Your task to perform on an android device: Open wifi settings Image 0: 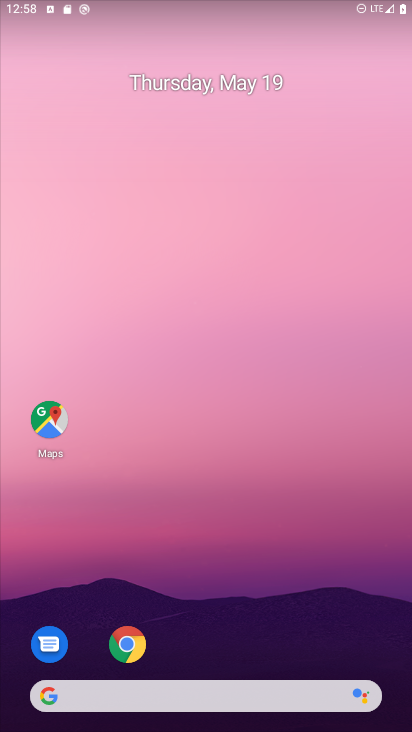
Step 0: drag from (291, 657) to (354, 23)
Your task to perform on an android device: Open wifi settings Image 1: 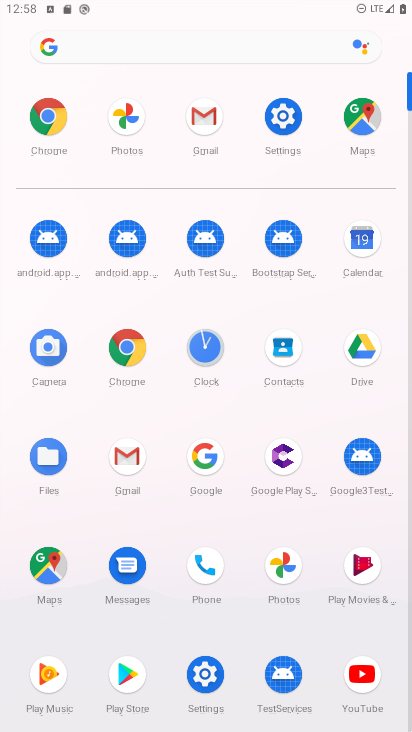
Step 1: click (207, 672)
Your task to perform on an android device: Open wifi settings Image 2: 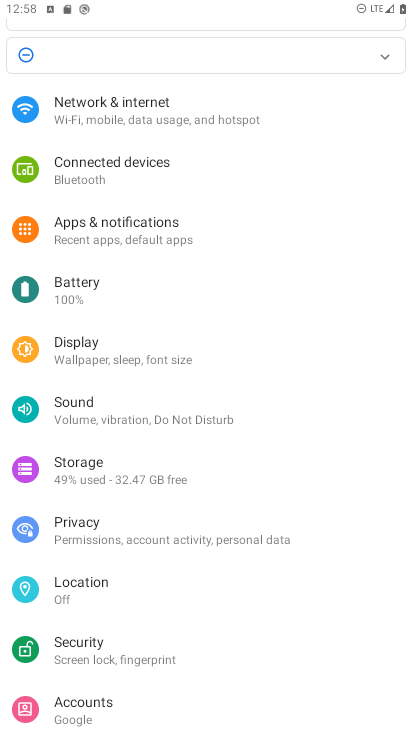
Step 2: click (159, 113)
Your task to perform on an android device: Open wifi settings Image 3: 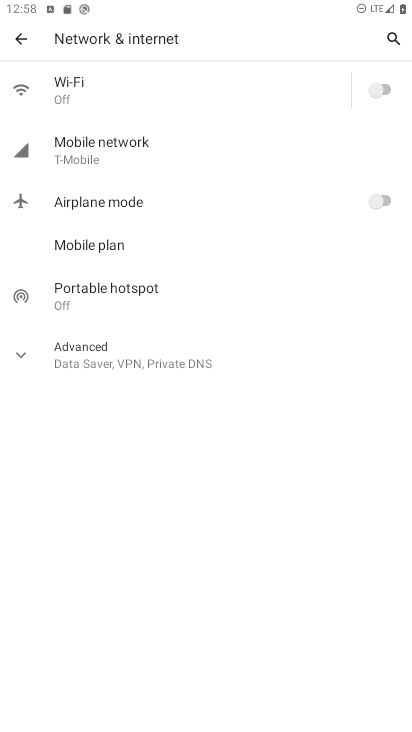
Step 3: click (92, 84)
Your task to perform on an android device: Open wifi settings Image 4: 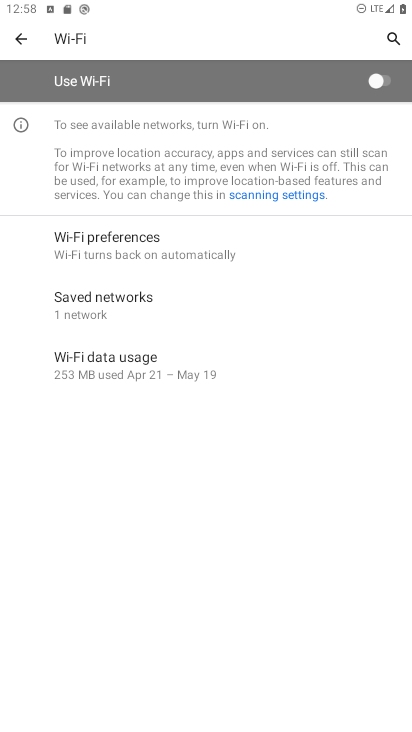
Step 4: task complete